Your task to perform on an android device: open wifi settings Image 0: 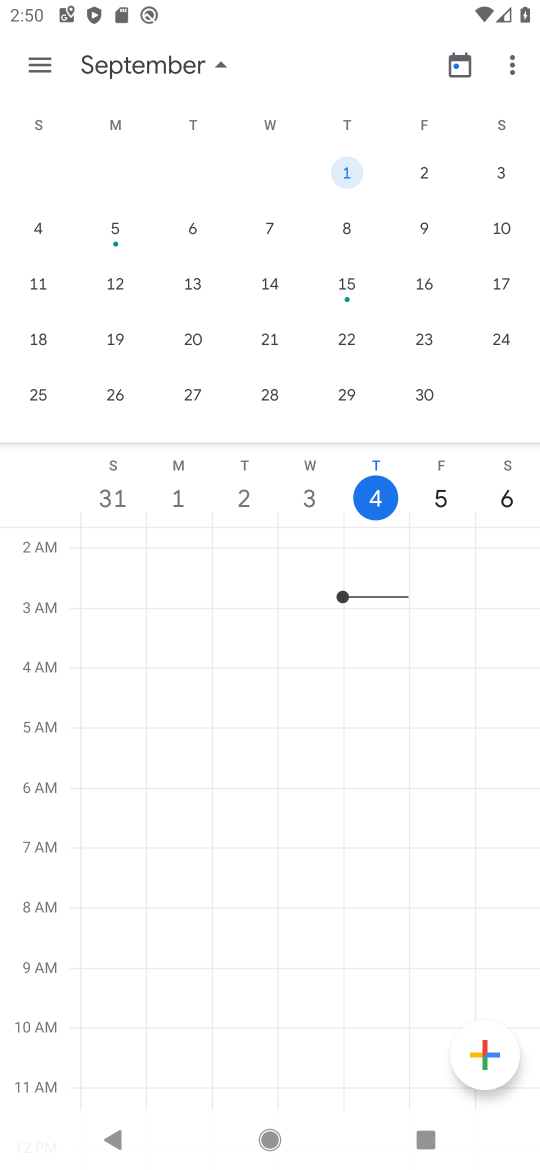
Step 0: press home button
Your task to perform on an android device: open wifi settings Image 1: 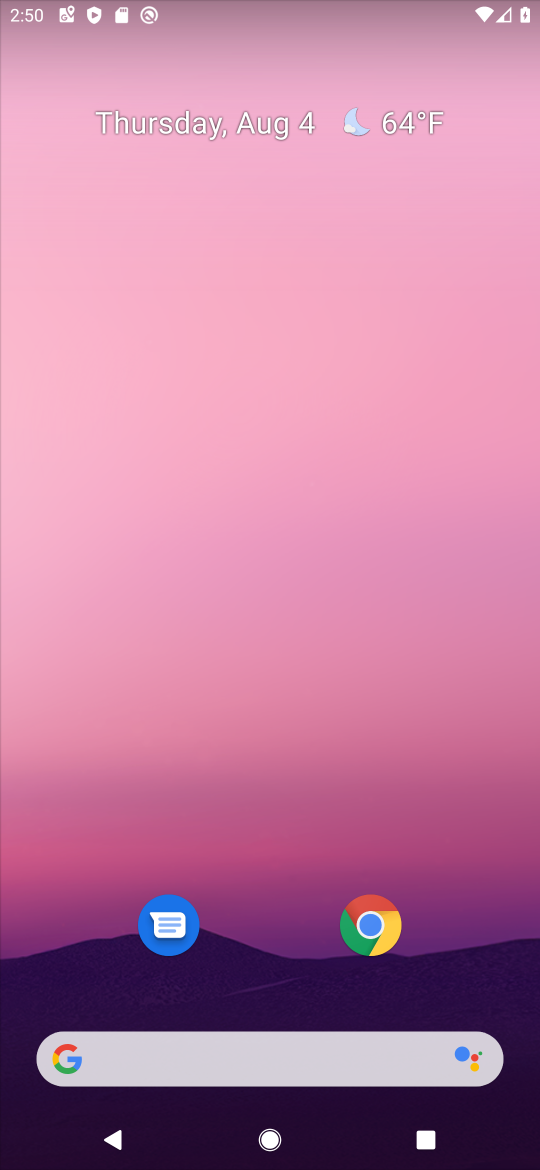
Step 1: drag from (223, 13) to (164, 1048)
Your task to perform on an android device: open wifi settings Image 2: 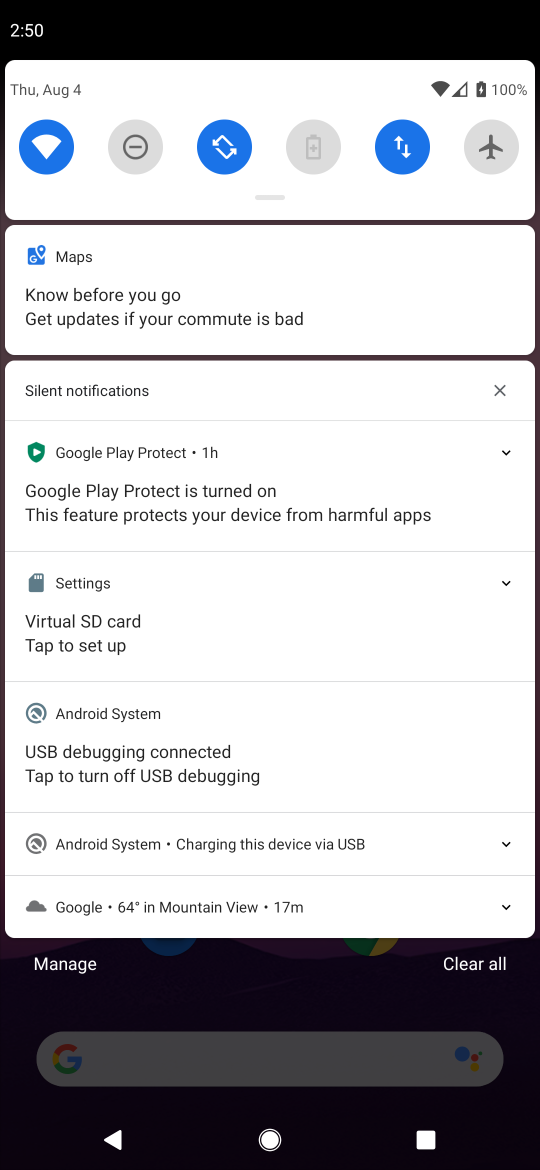
Step 2: click (44, 142)
Your task to perform on an android device: open wifi settings Image 3: 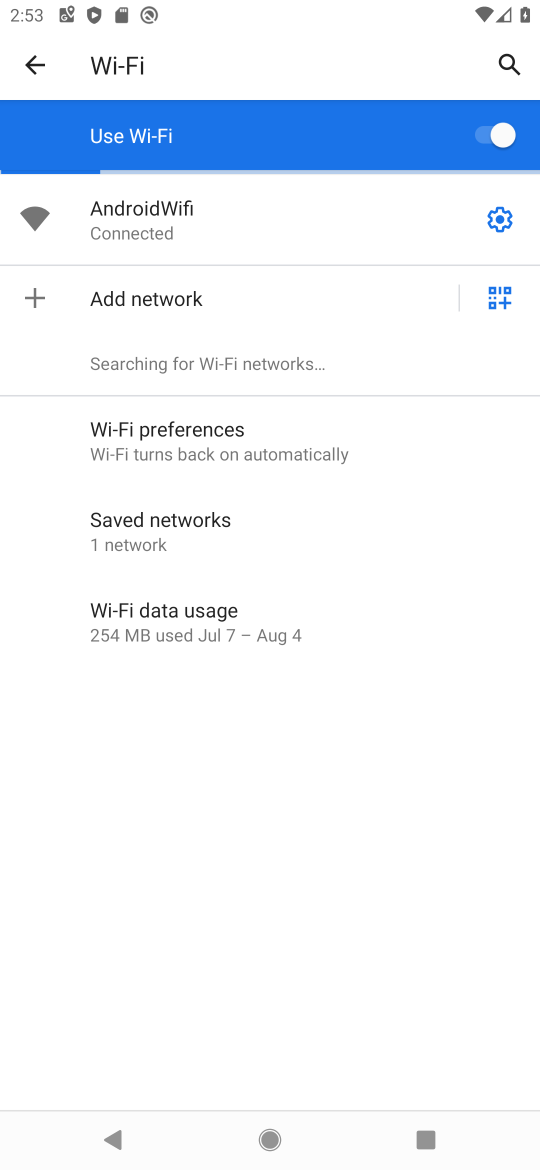
Step 3: task complete